Your task to perform on an android device: Open Youtube and go to "Your channel" Image 0: 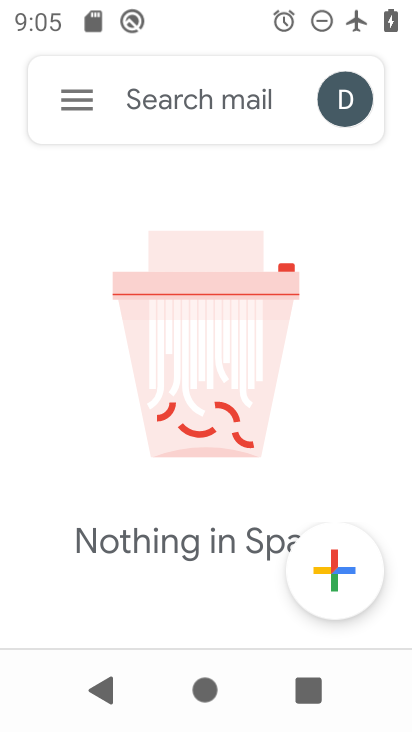
Step 0: press home button
Your task to perform on an android device: Open Youtube and go to "Your channel" Image 1: 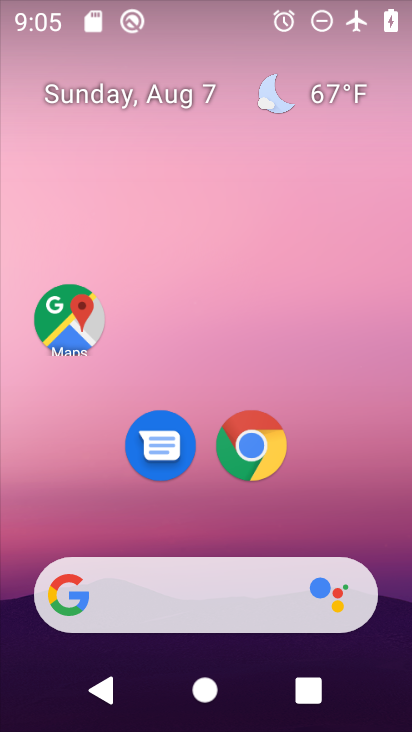
Step 1: drag from (217, 515) to (241, 144)
Your task to perform on an android device: Open Youtube and go to "Your channel" Image 2: 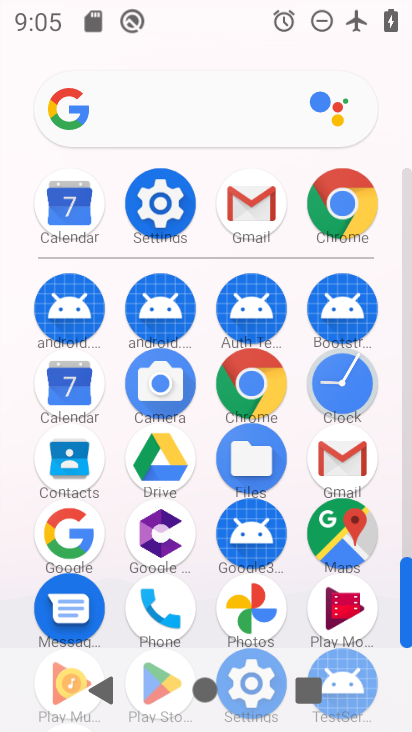
Step 2: drag from (290, 530) to (315, 66)
Your task to perform on an android device: Open Youtube and go to "Your channel" Image 3: 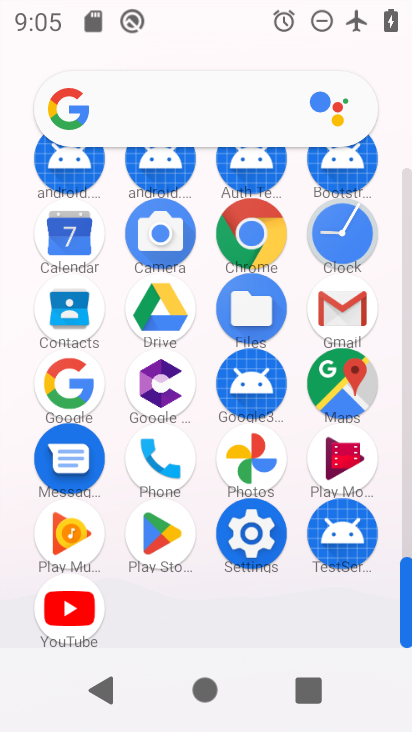
Step 3: click (65, 604)
Your task to perform on an android device: Open Youtube and go to "Your channel" Image 4: 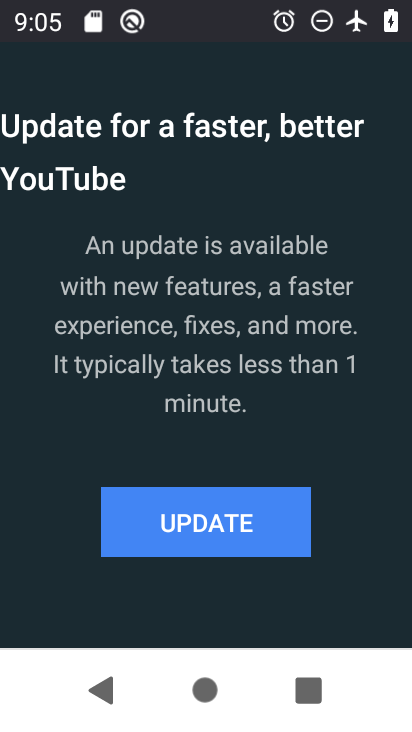
Step 4: click (209, 512)
Your task to perform on an android device: Open Youtube and go to "Your channel" Image 5: 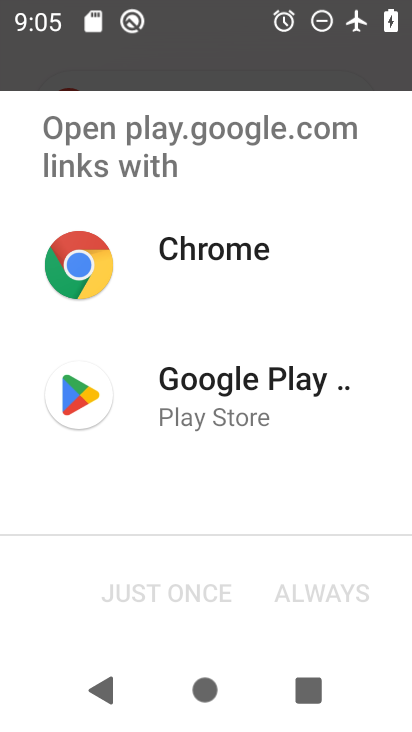
Step 5: click (115, 424)
Your task to perform on an android device: Open Youtube and go to "Your channel" Image 6: 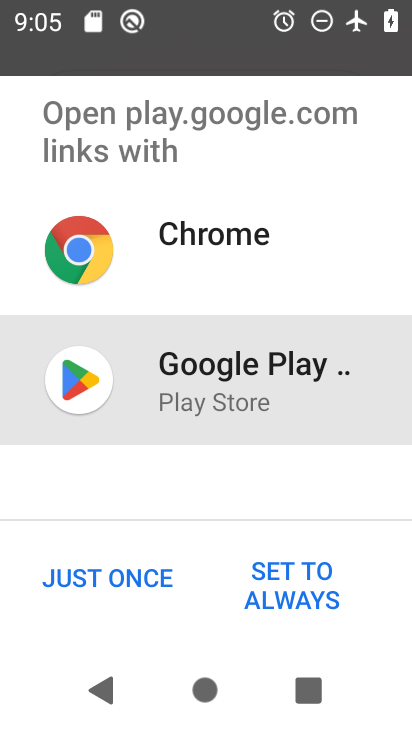
Step 6: click (136, 575)
Your task to perform on an android device: Open Youtube and go to "Your channel" Image 7: 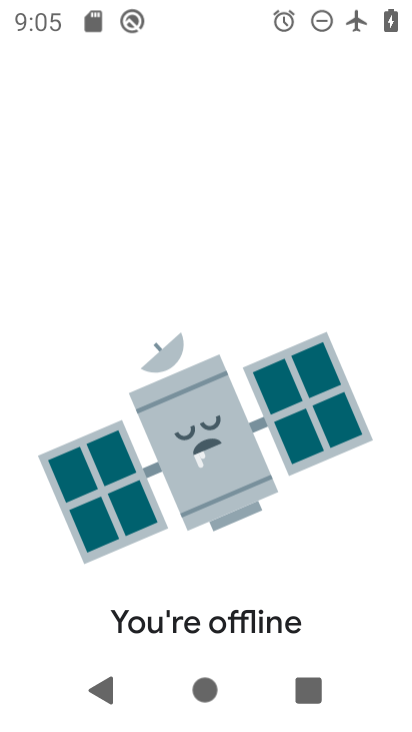
Step 7: task complete